Your task to perform on an android device: What's on my calendar tomorrow? Image 0: 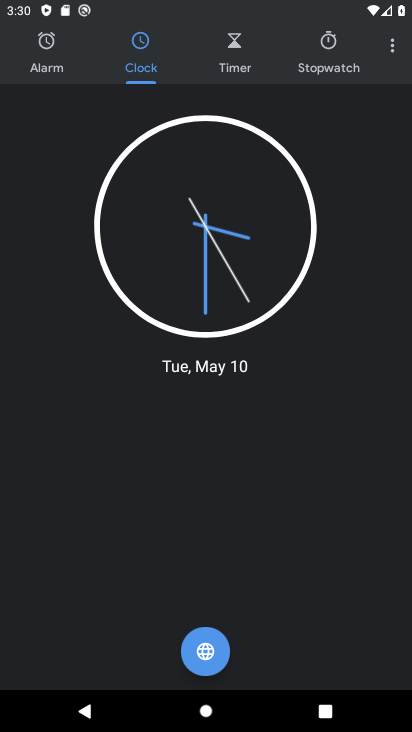
Step 0: press home button
Your task to perform on an android device: What's on my calendar tomorrow? Image 1: 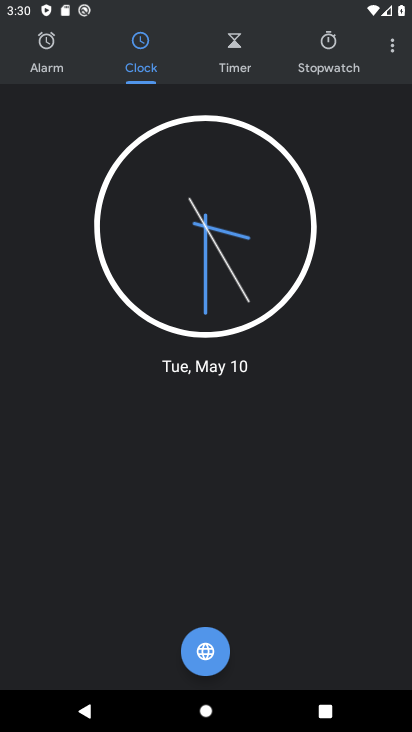
Step 1: press home button
Your task to perform on an android device: What's on my calendar tomorrow? Image 2: 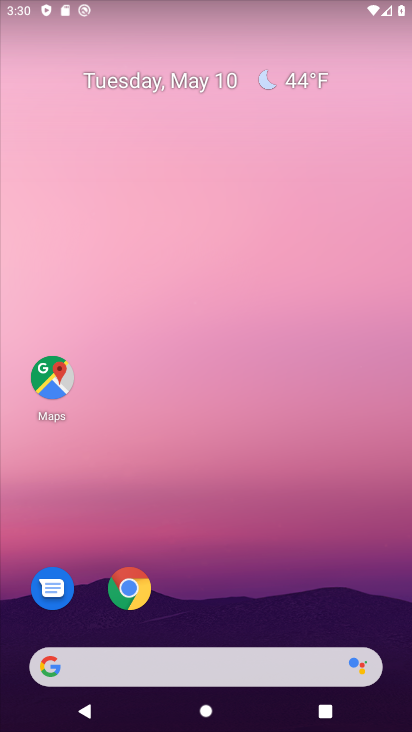
Step 2: drag from (250, 590) to (212, 77)
Your task to perform on an android device: What's on my calendar tomorrow? Image 3: 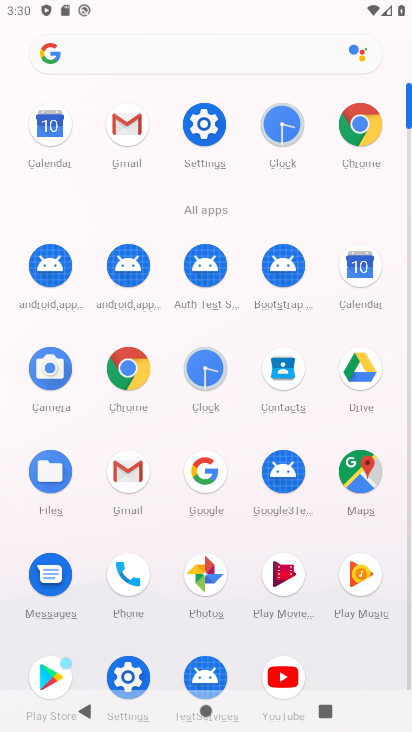
Step 3: click (54, 134)
Your task to perform on an android device: What's on my calendar tomorrow? Image 4: 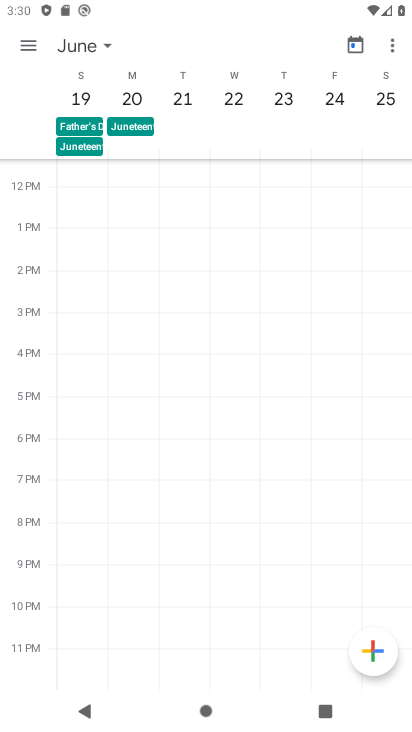
Step 4: click (86, 45)
Your task to perform on an android device: What's on my calendar tomorrow? Image 5: 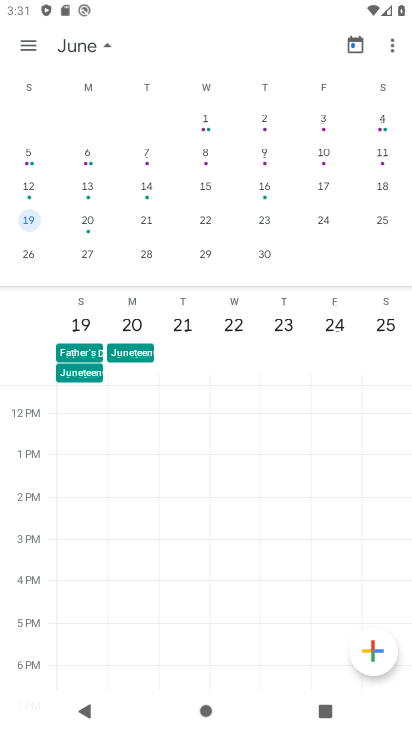
Step 5: click (23, 37)
Your task to perform on an android device: What's on my calendar tomorrow? Image 6: 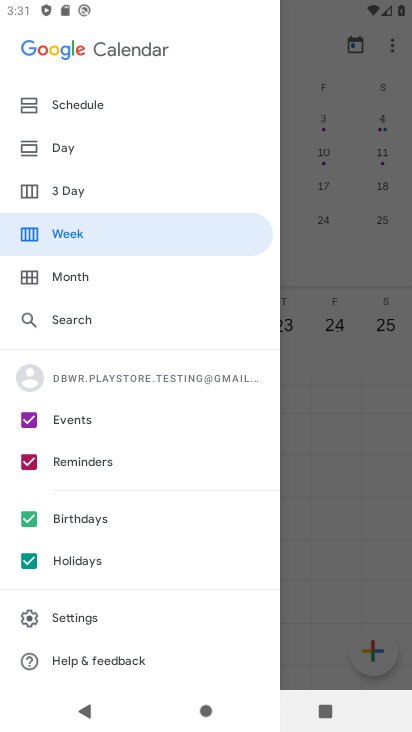
Step 6: click (52, 142)
Your task to perform on an android device: What's on my calendar tomorrow? Image 7: 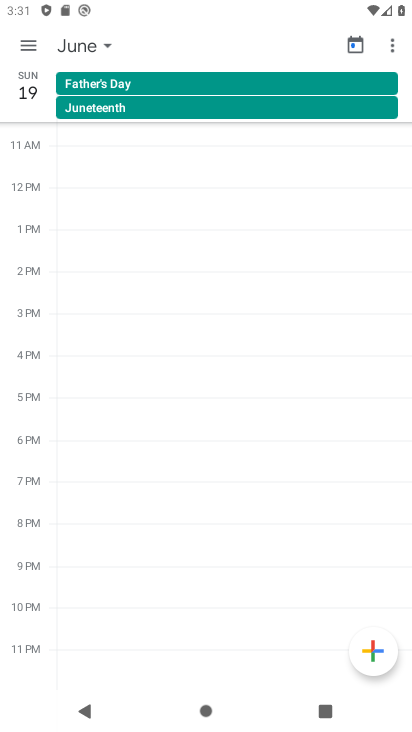
Step 7: click (89, 48)
Your task to perform on an android device: What's on my calendar tomorrow? Image 8: 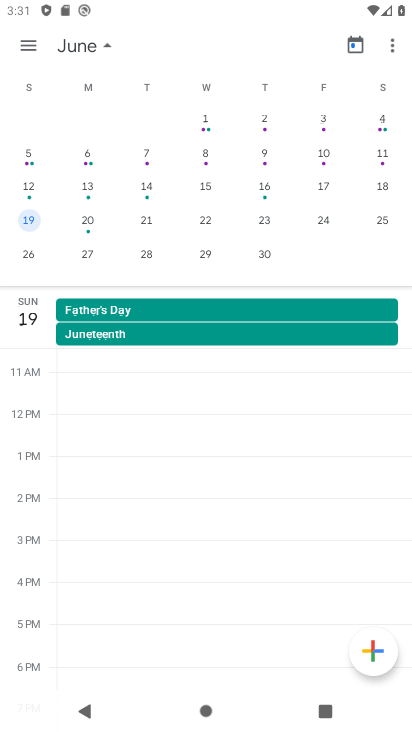
Step 8: drag from (47, 134) to (407, 122)
Your task to perform on an android device: What's on my calendar tomorrow? Image 9: 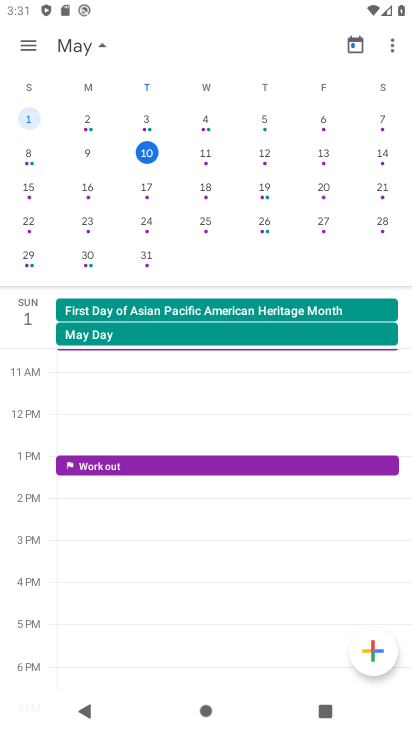
Step 9: click (205, 146)
Your task to perform on an android device: What's on my calendar tomorrow? Image 10: 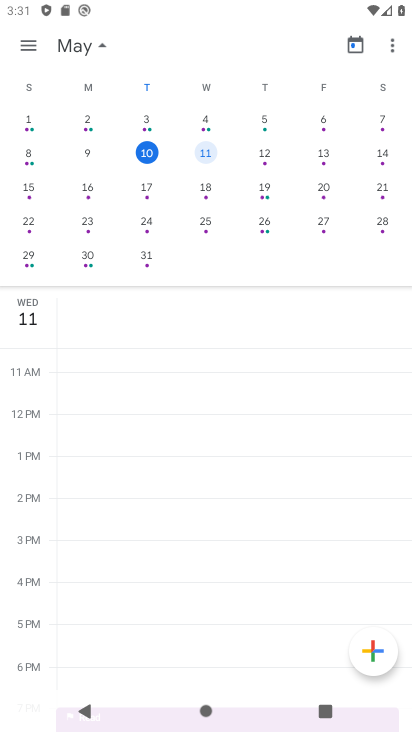
Step 10: task complete